Your task to perform on an android device: Search for flights from NYC to London Image 0: 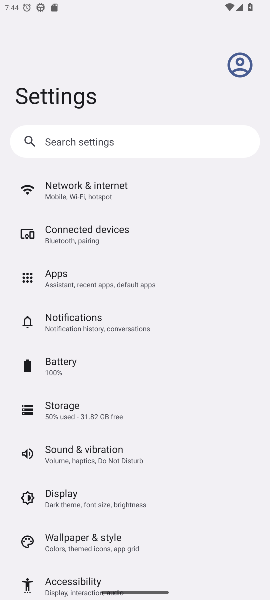
Step 0: press home button
Your task to perform on an android device: Search for flights from NYC to London Image 1: 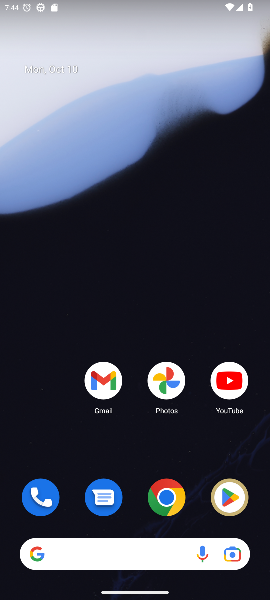
Step 1: drag from (143, 313) to (143, 214)
Your task to perform on an android device: Search for flights from NYC to London Image 2: 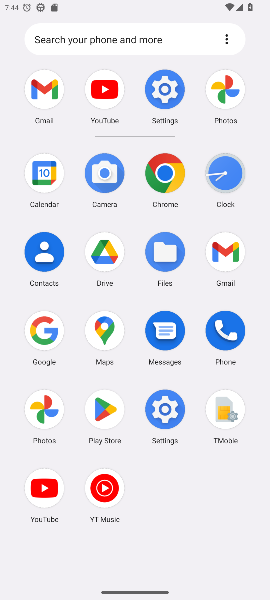
Step 2: click (41, 336)
Your task to perform on an android device: Search for flights from NYC to London Image 3: 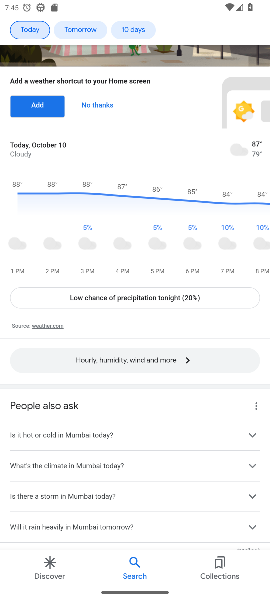
Step 3: drag from (114, 153) to (94, 413)
Your task to perform on an android device: Search for flights from NYC to London Image 4: 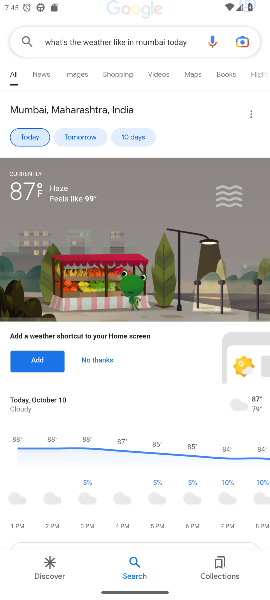
Step 4: click (108, 40)
Your task to perform on an android device: Search for flights from NYC to London Image 5: 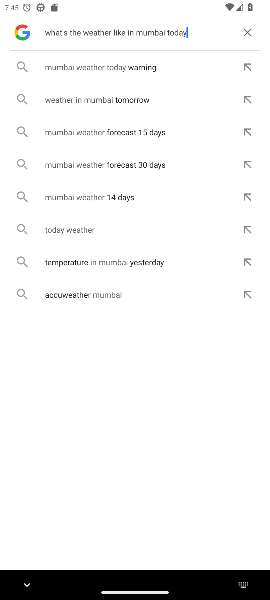
Step 5: click (252, 31)
Your task to perform on an android device: Search for flights from NYC to London Image 6: 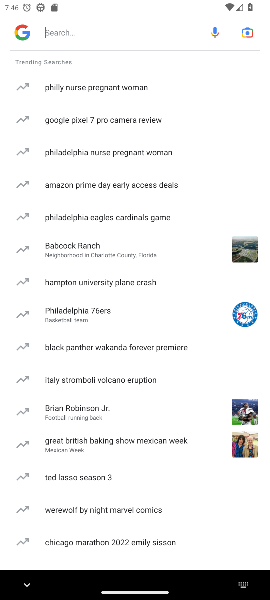
Step 6: click (133, 32)
Your task to perform on an android device: Search for flights from NYC to London Image 7: 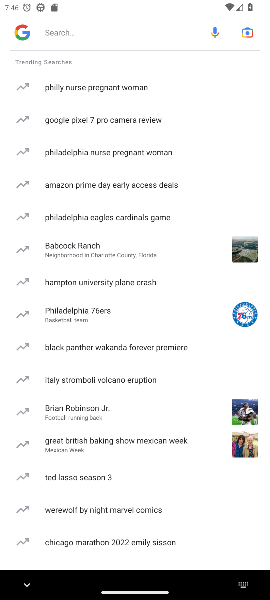
Step 7: type "Search for flights from NYC to London "
Your task to perform on an android device: Search for flights from NYC to London Image 8: 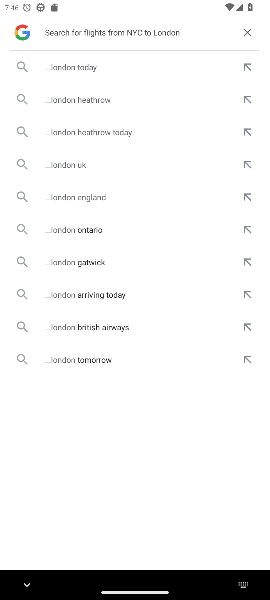
Step 8: click (105, 71)
Your task to perform on an android device: Search for flights from NYC to London Image 9: 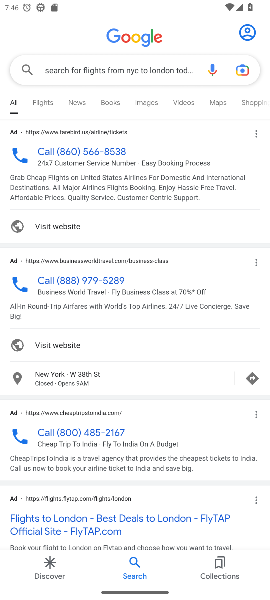
Step 9: click (67, 528)
Your task to perform on an android device: Search for flights from NYC to London Image 10: 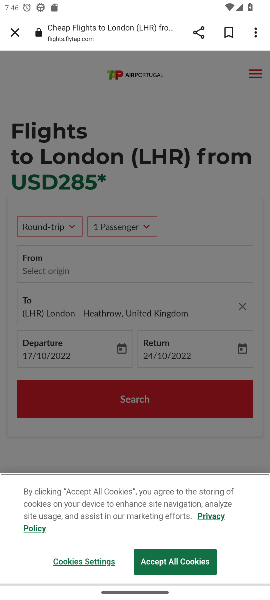
Step 10: task complete